Your task to perform on an android device: turn pop-ups off in chrome Image 0: 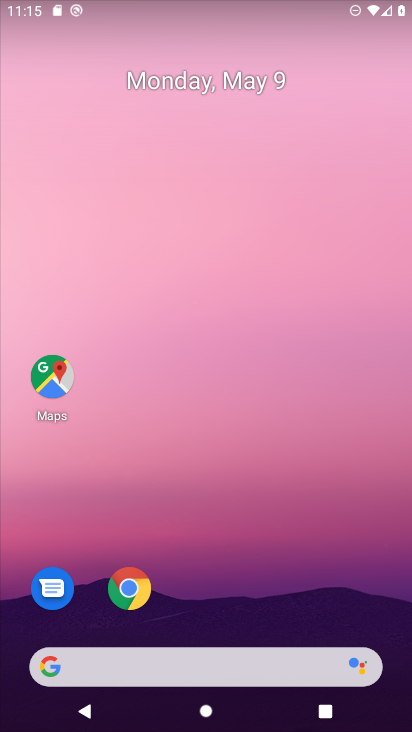
Step 0: click (134, 607)
Your task to perform on an android device: turn pop-ups off in chrome Image 1: 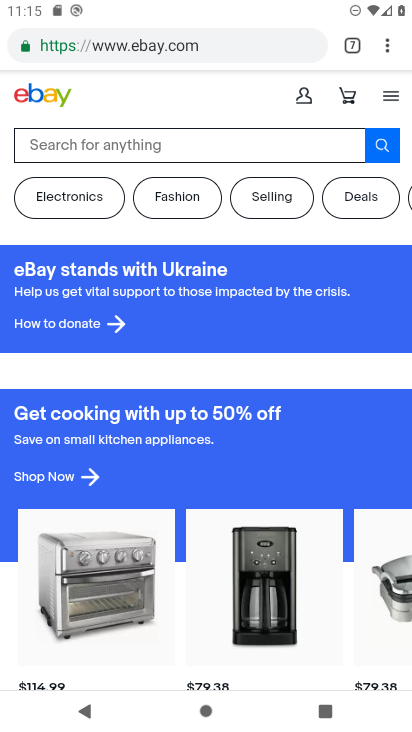
Step 1: click (384, 52)
Your task to perform on an android device: turn pop-ups off in chrome Image 2: 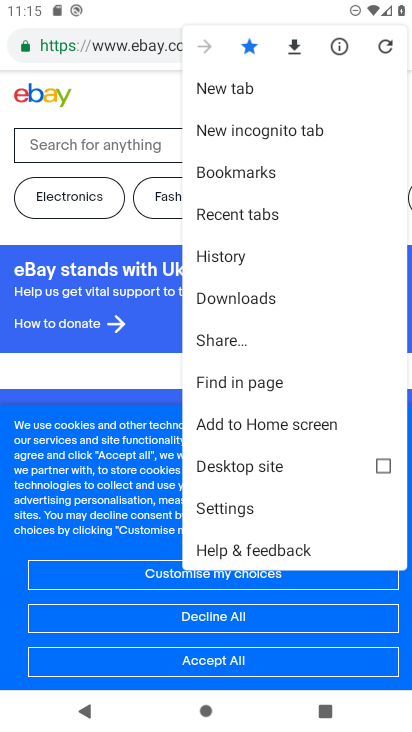
Step 2: click (242, 506)
Your task to perform on an android device: turn pop-ups off in chrome Image 3: 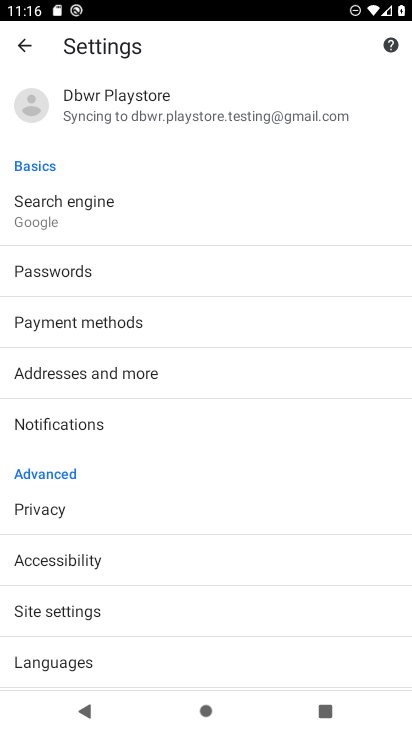
Step 3: click (216, 600)
Your task to perform on an android device: turn pop-ups off in chrome Image 4: 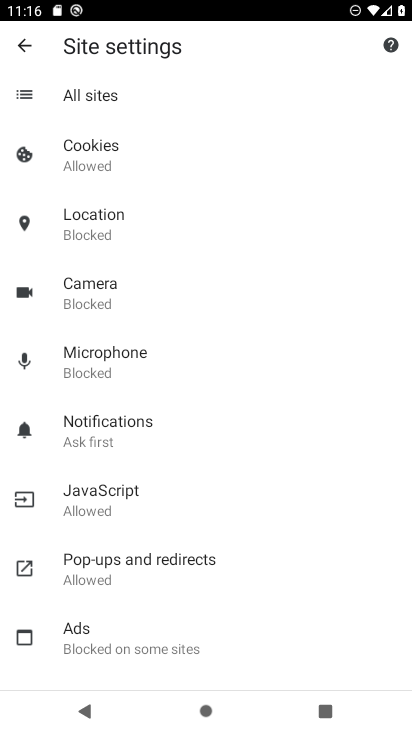
Step 4: click (189, 569)
Your task to perform on an android device: turn pop-ups off in chrome Image 5: 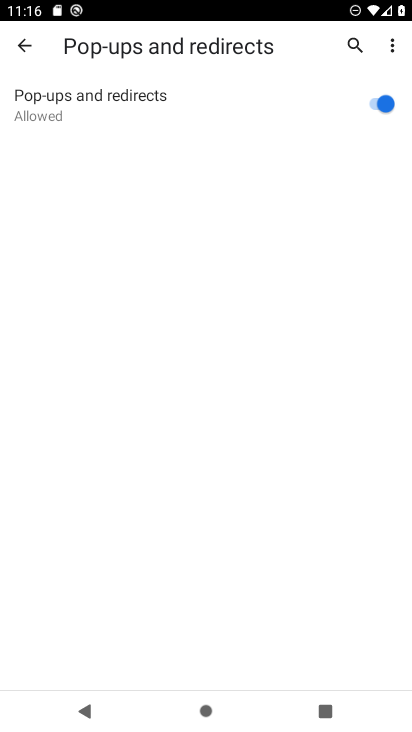
Step 5: task complete